Your task to perform on an android device: empty trash in google photos Image 0: 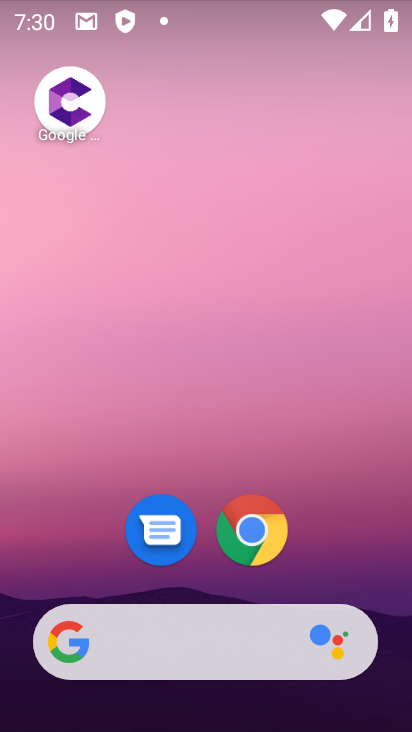
Step 0: drag from (208, 601) to (123, 124)
Your task to perform on an android device: empty trash in google photos Image 1: 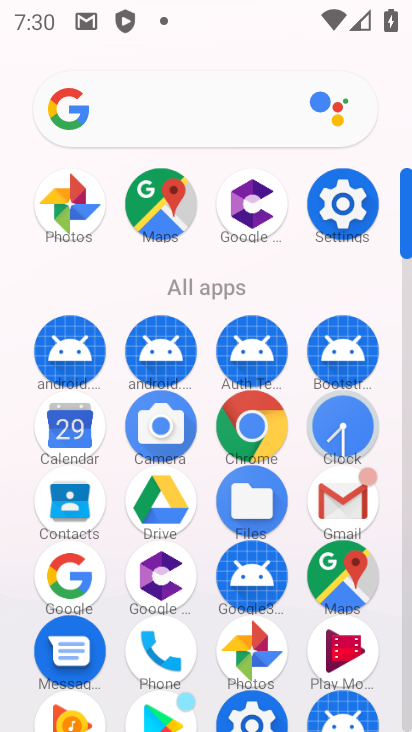
Step 1: click (247, 644)
Your task to perform on an android device: empty trash in google photos Image 2: 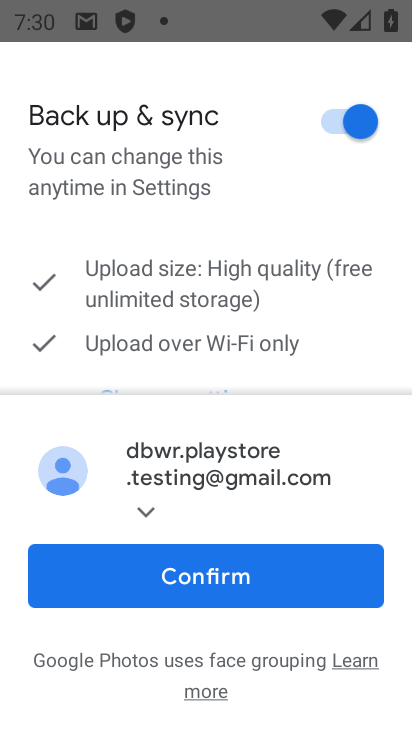
Step 2: click (44, 101)
Your task to perform on an android device: empty trash in google photos Image 3: 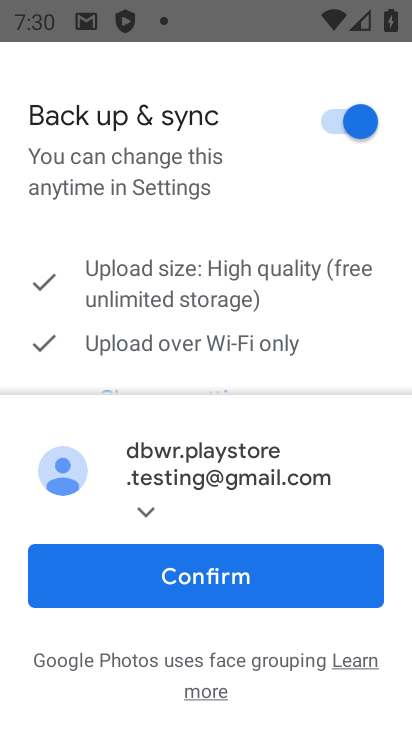
Step 3: click (181, 568)
Your task to perform on an android device: empty trash in google photos Image 4: 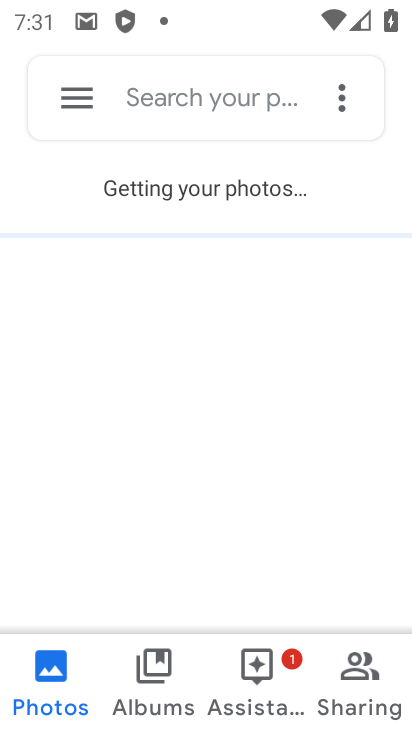
Step 4: click (75, 89)
Your task to perform on an android device: empty trash in google photos Image 5: 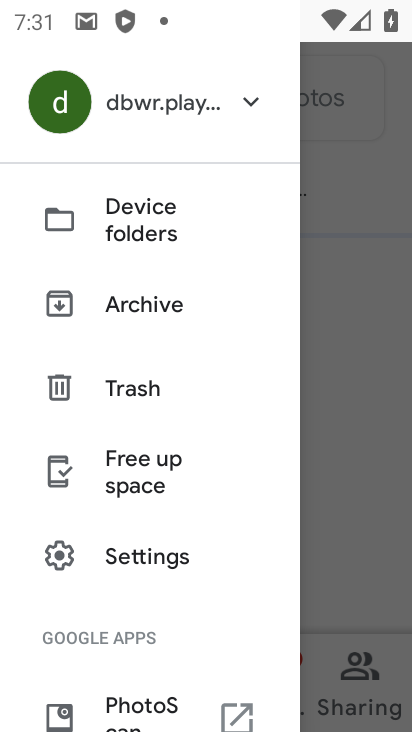
Step 5: click (119, 398)
Your task to perform on an android device: empty trash in google photos Image 6: 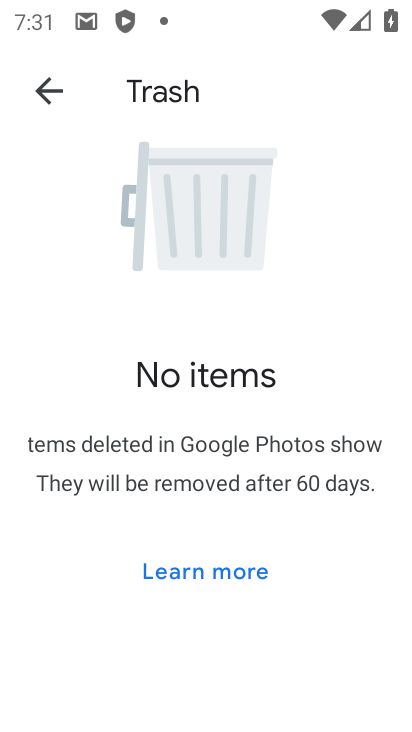
Step 6: task complete